Your task to perform on an android device: open app "Indeed Job Search" (install if not already installed) and go to login screen Image 0: 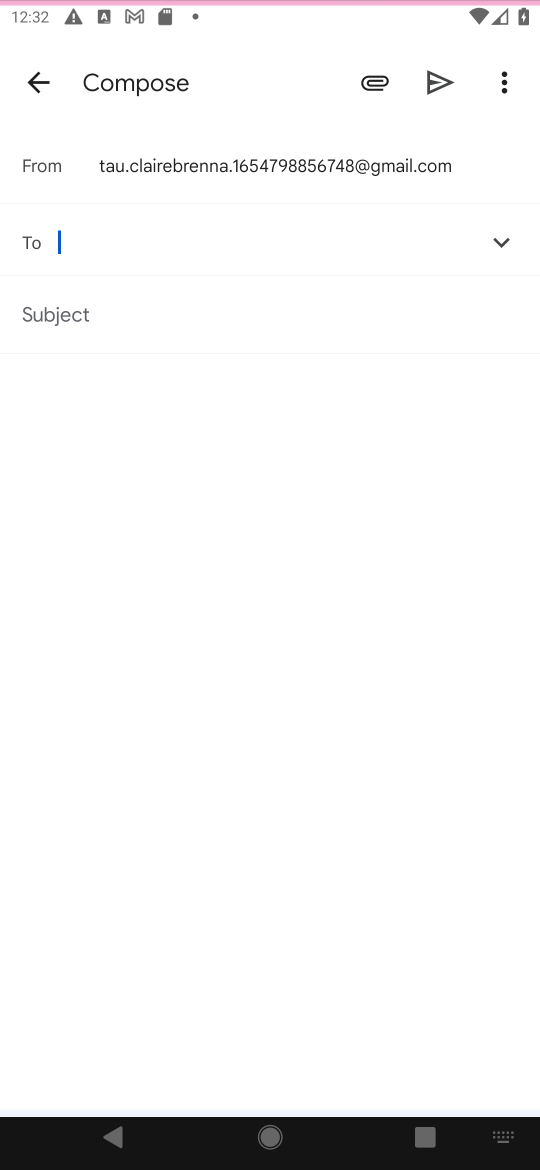
Step 0: press home button
Your task to perform on an android device: open app "Indeed Job Search" (install if not already installed) and go to login screen Image 1: 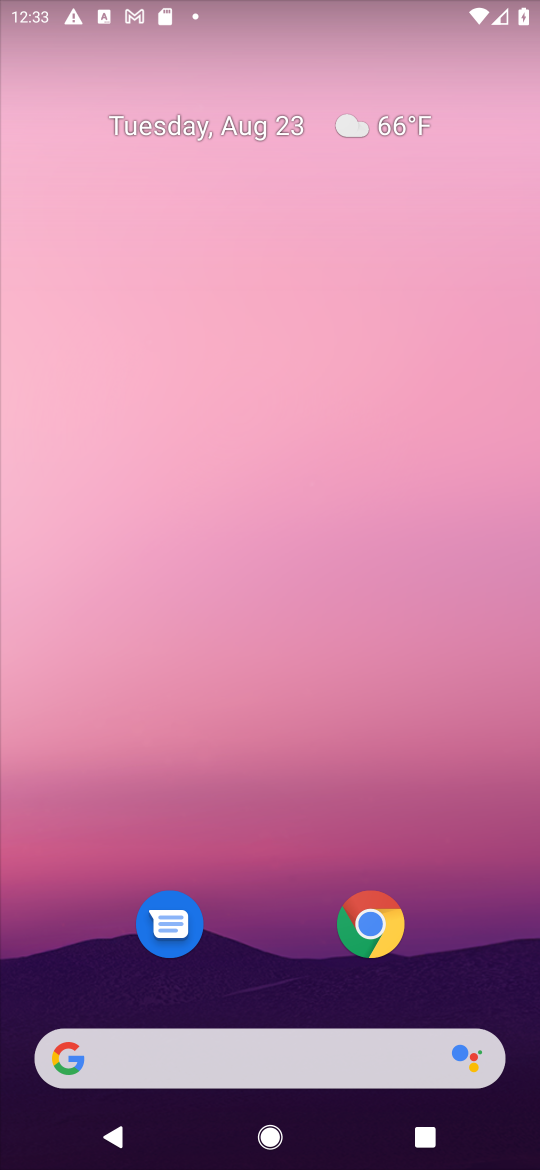
Step 1: drag from (470, 925) to (479, 245)
Your task to perform on an android device: open app "Indeed Job Search" (install if not already installed) and go to login screen Image 2: 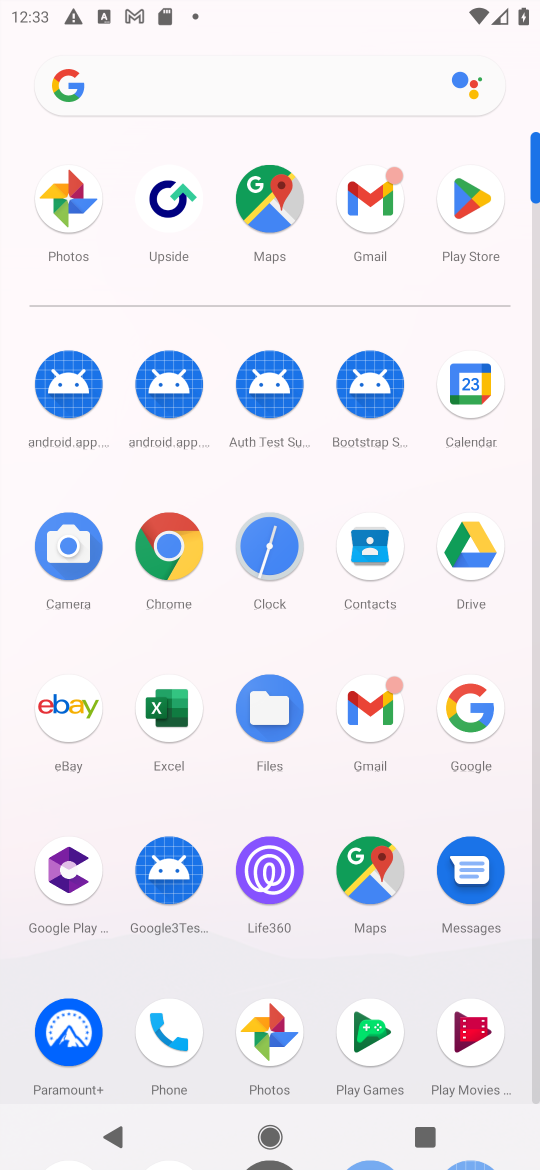
Step 2: click (462, 195)
Your task to perform on an android device: open app "Indeed Job Search" (install if not already installed) and go to login screen Image 3: 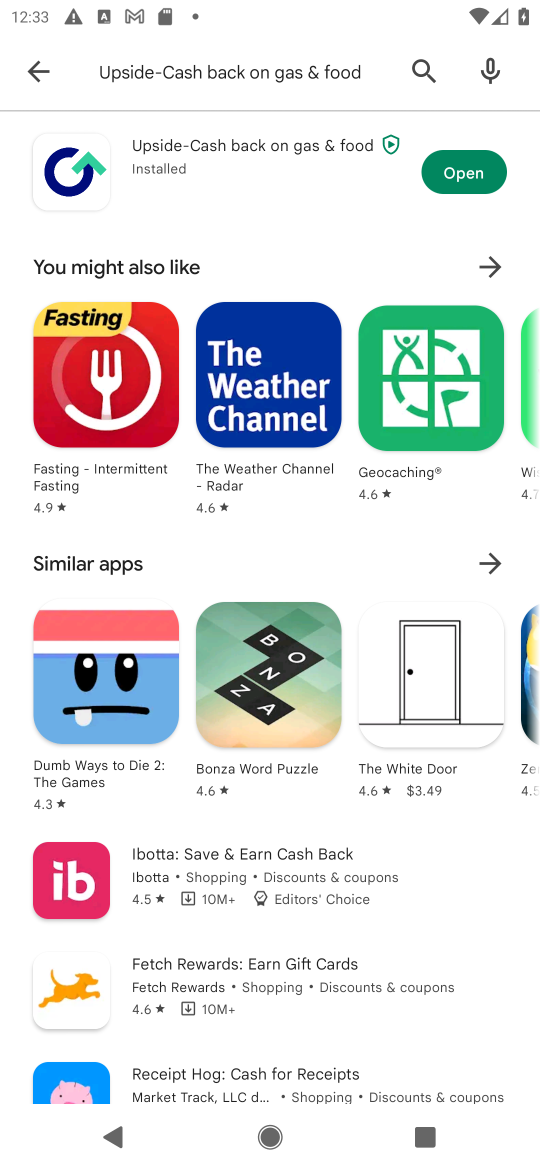
Step 3: press back button
Your task to perform on an android device: open app "Indeed Job Search" (install if not already installed) and go to login screen Image 4: 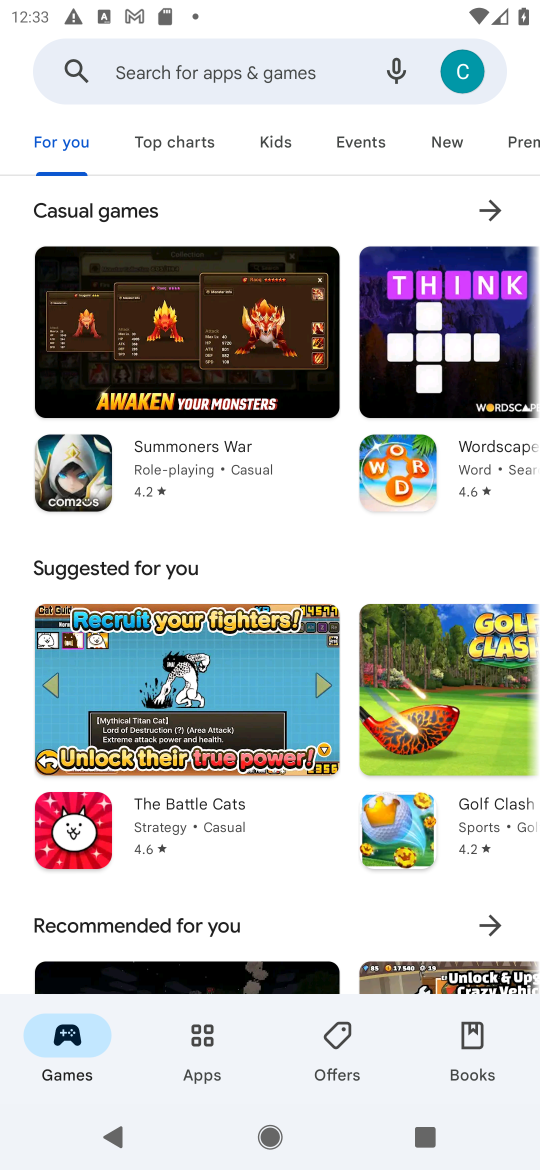
Step 4: click (225, 63)
Your task to perform on an android device: open app "Indeed Job Search" (install if not already installed) and go to login screen Image 5: 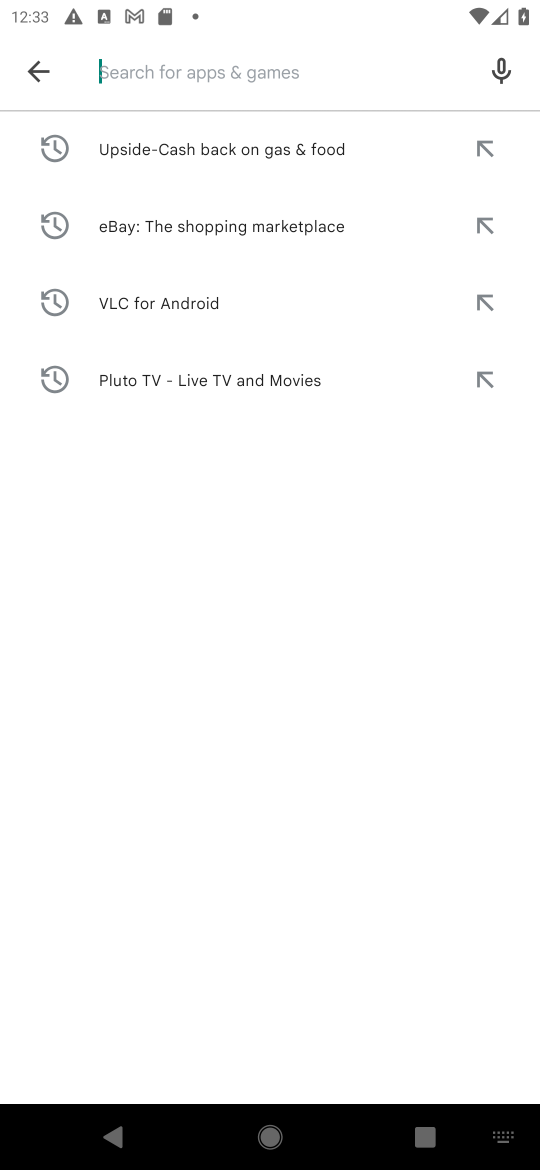
Step 5: type "Indeed Job Search"
Your task to perform on an android device: open app "Indeed Job Search" (install if not already installed) and go to login screen Image 6: 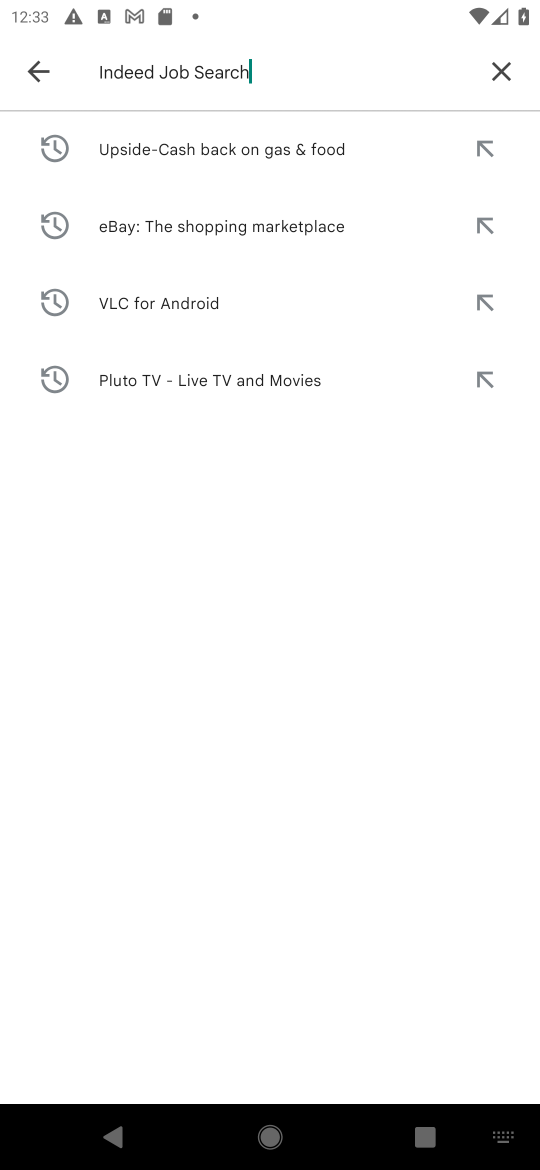
Step 6: press enter
Your task to perform on an android device: open app "Indeed Job Search" (install if not already installed) and go to login screen Image 7: 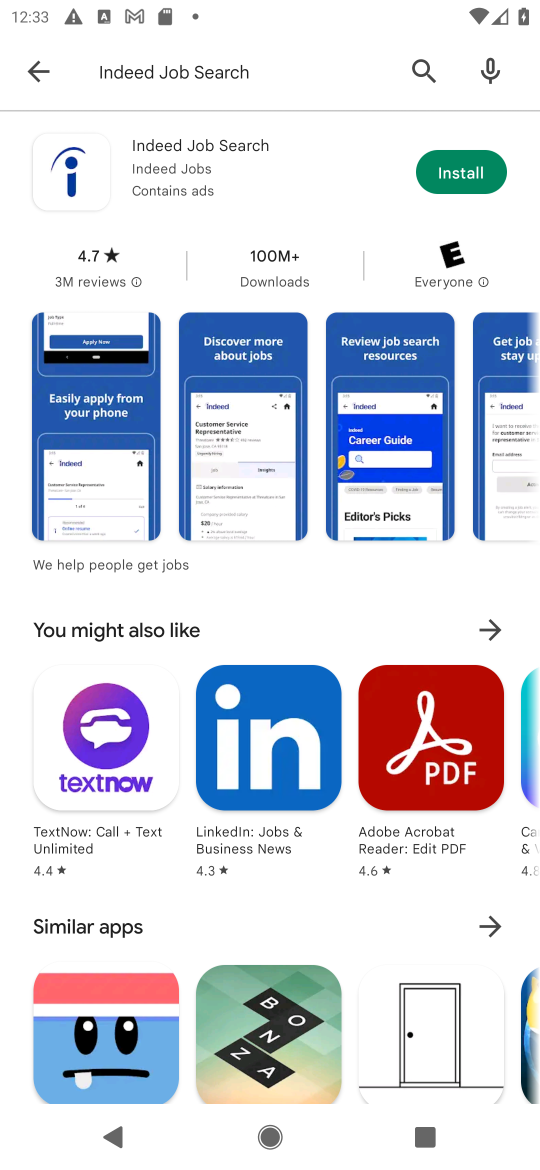
Step 7: click (464, 176)
Your task to perform on an android device: open app "Indeed Job Search" (install if not already installed) and go to login screen Image 8: 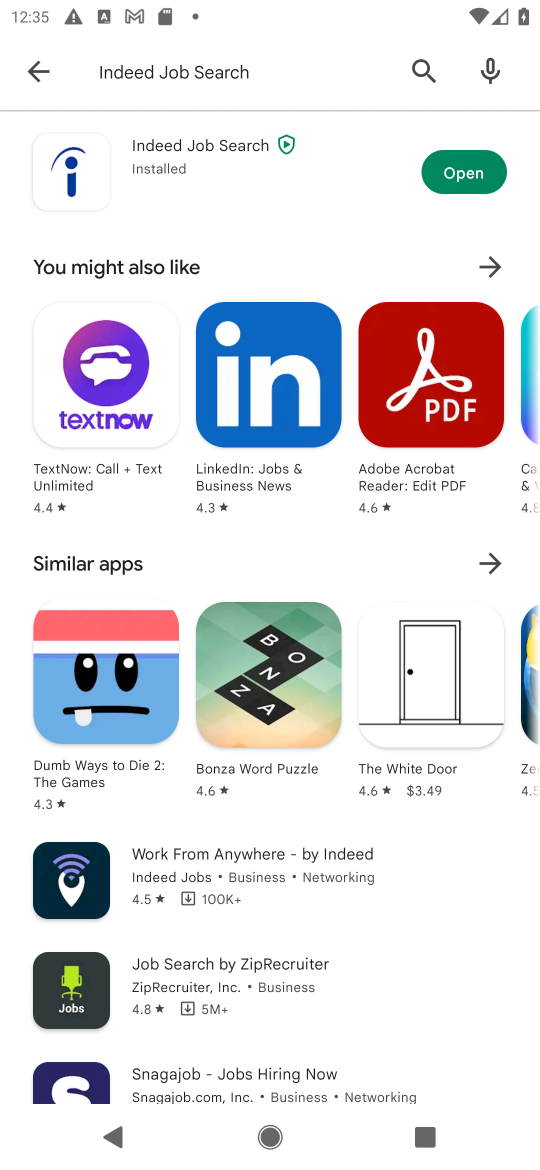
Step 8: click (459, 173)
Your task to perform on an android device: open app "Indeed Job Search" (install if not already installed) and go to login screen Image 9: 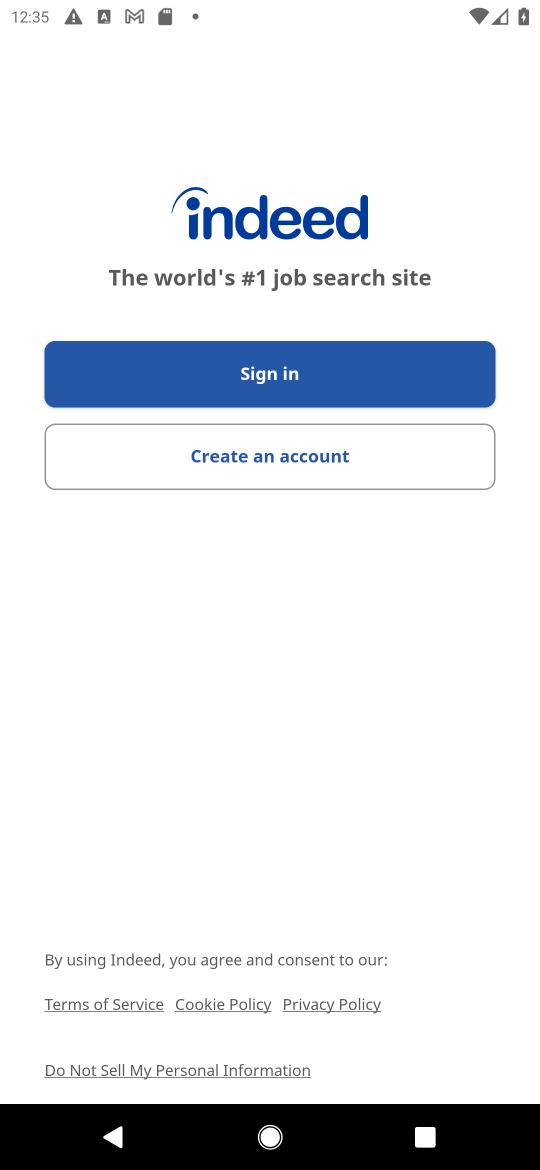
Step 9: task complete